Your task to perform on an android device: Add beats solo 3 to the cart on ebay.com Image 0: 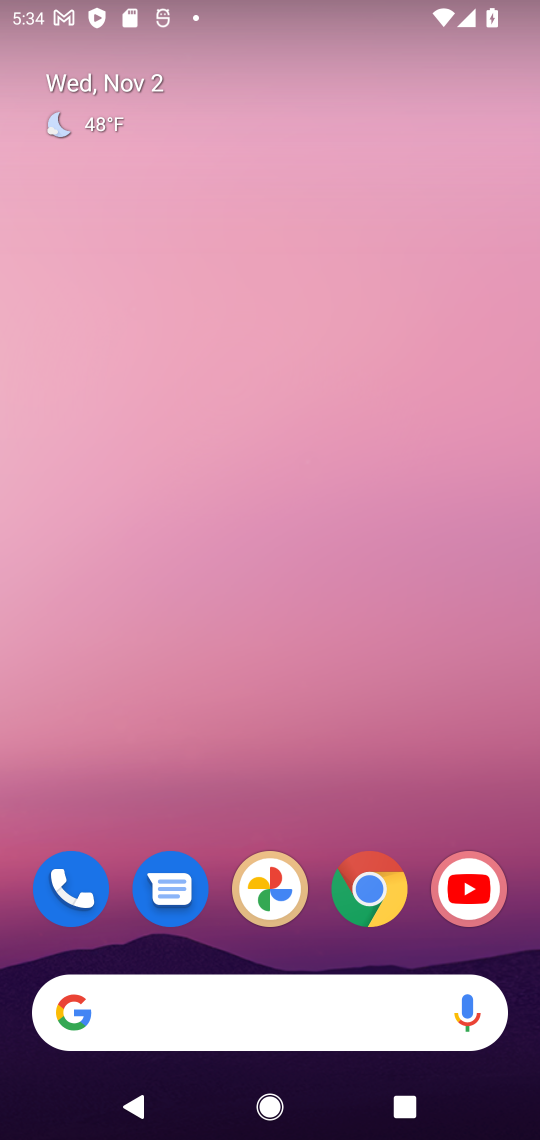
Step 0: click (379, 891)
Your task to perform on an android device: Add beats solo 3 to the cart on ebay.com Image 1: 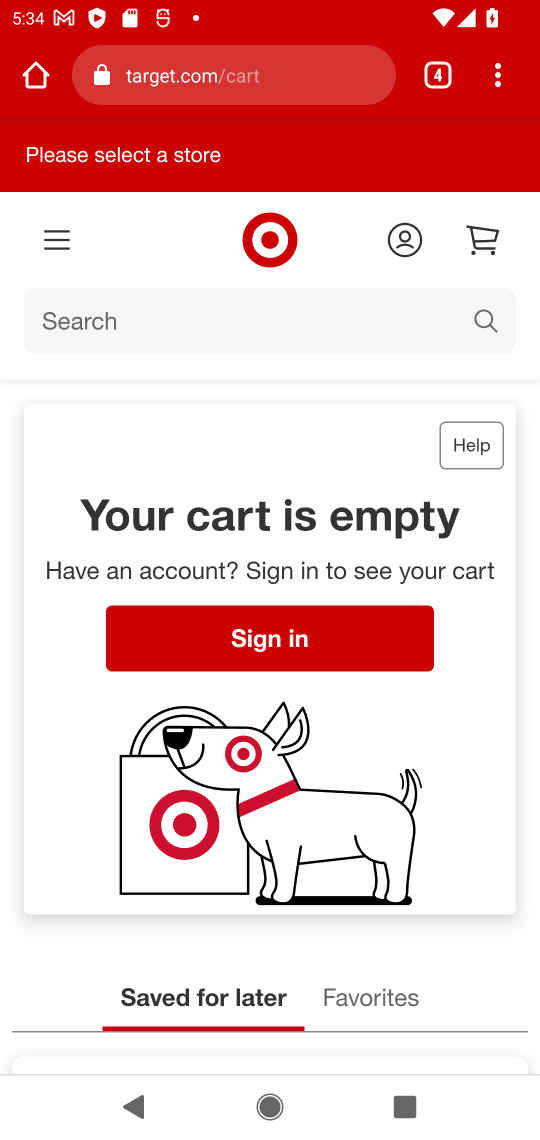
Step 1: click (255, 87)
Your task to perform on an android device: Add beats solo 3 to the cart on ebay.com Image 2: 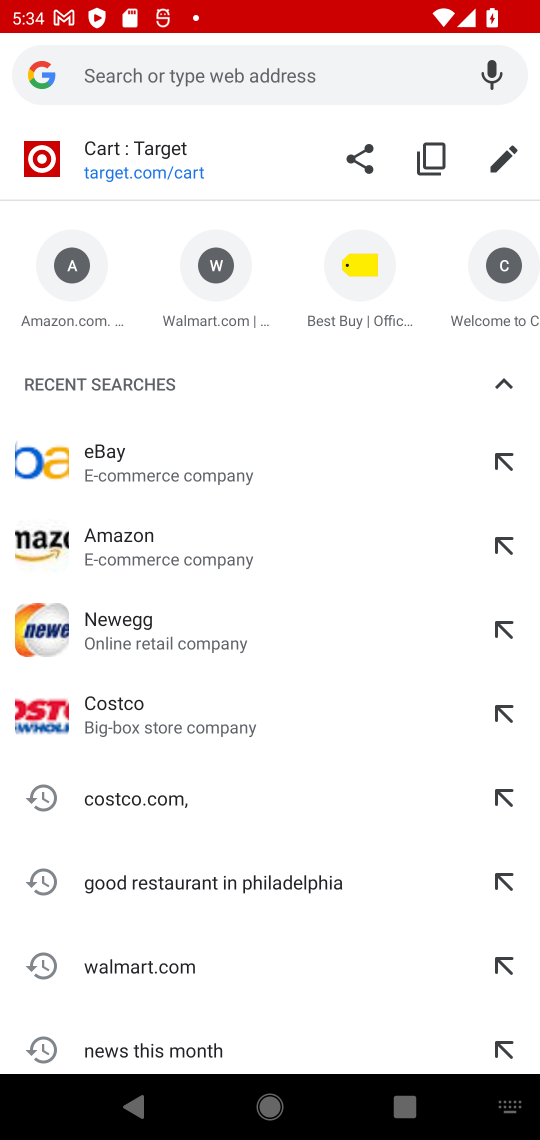
Step 2: click (97, 439)
Your task to perform on an android device: Add beats solo 3 to the cart on ebay.com Image 3: 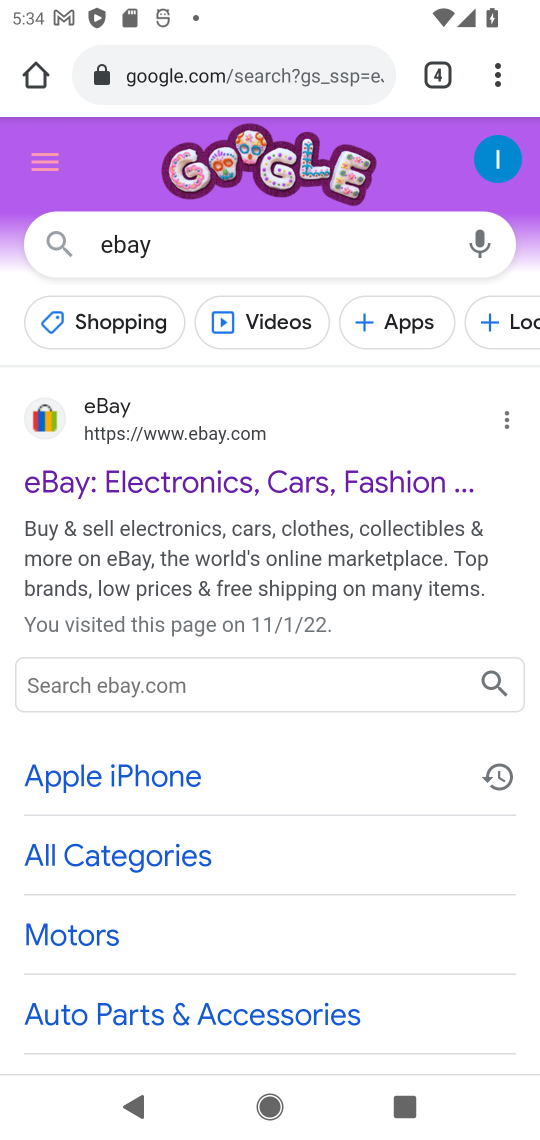
Step 3: click (107, 489)
Your task to perform on an android device: Add beats solo 3 to the cart on ebay.com Image 4: 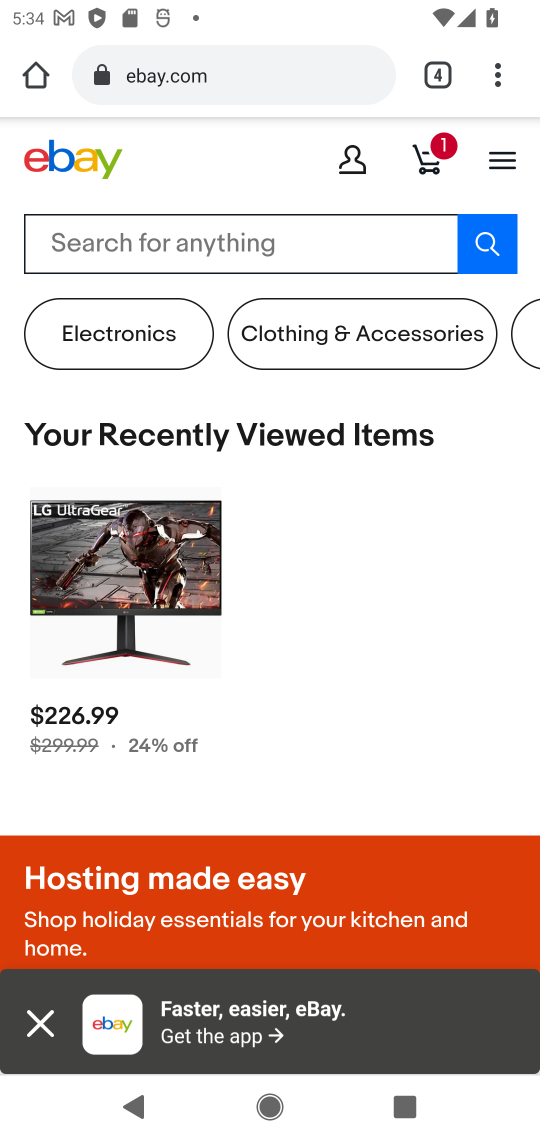
Step 4: click (215, 248)
Your task to perform on an android device: Add beats solo 3 to the cart on ebay.com Image 5: 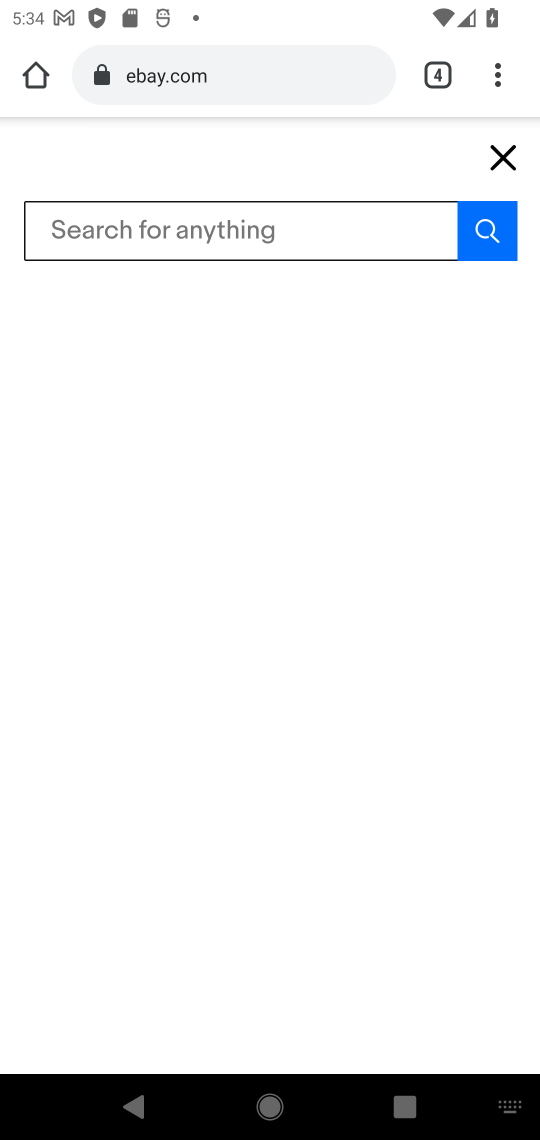
Step 5: type "beats solo 3"
Your task to perform on an android device: Add beats solo 3 to the cart on ebay.com Image 6: 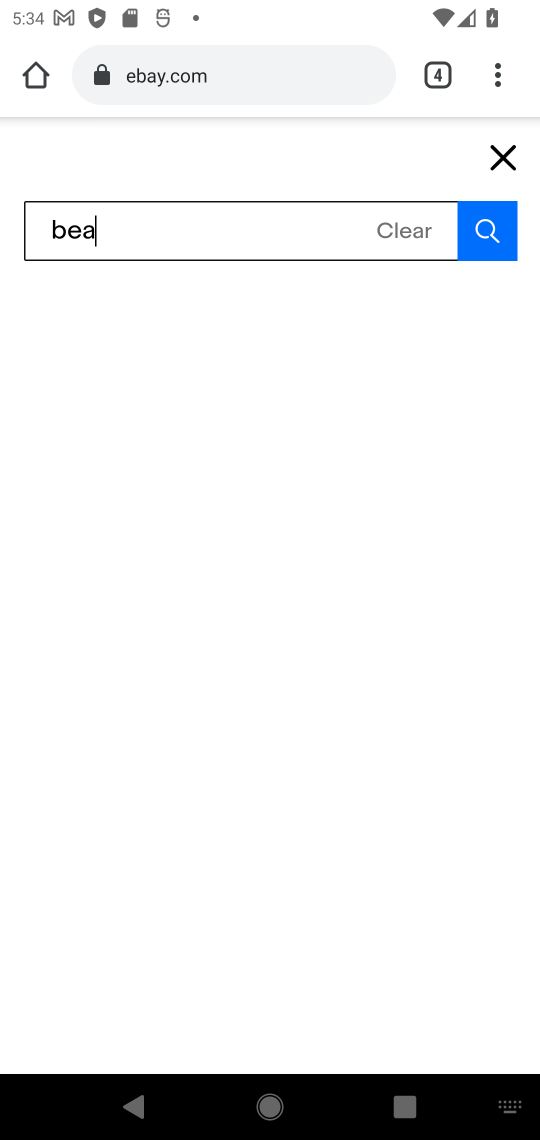
Step 6: press enter
Your task to perform on an android device: Add beats solo 3 to the cart on ebay.com Image 7: 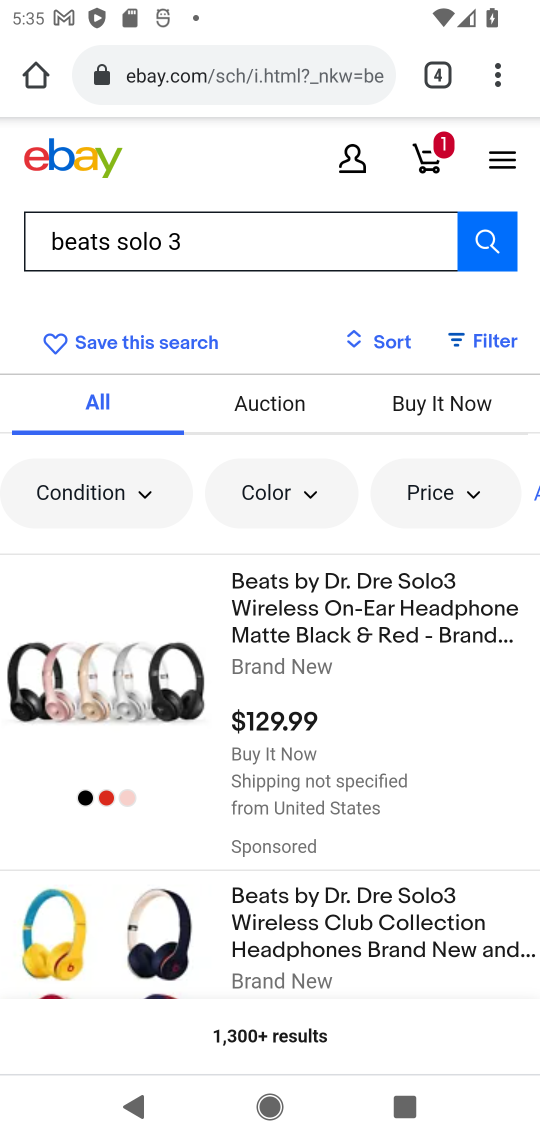
Step 7: click (282, 612)
Your task to perform on an android device: Add beats solo 3 to the cart on ebay.com Image 8: 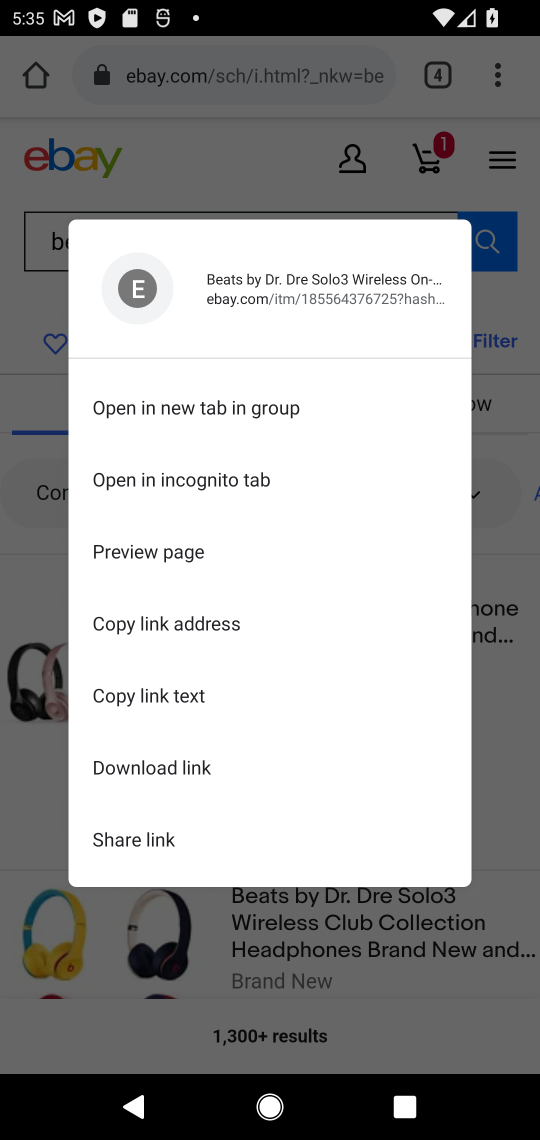
Step 8: click (42, 637)
Your task to perform on an android device: Add beats solo 3 to the cart on ebay.com Image 9: 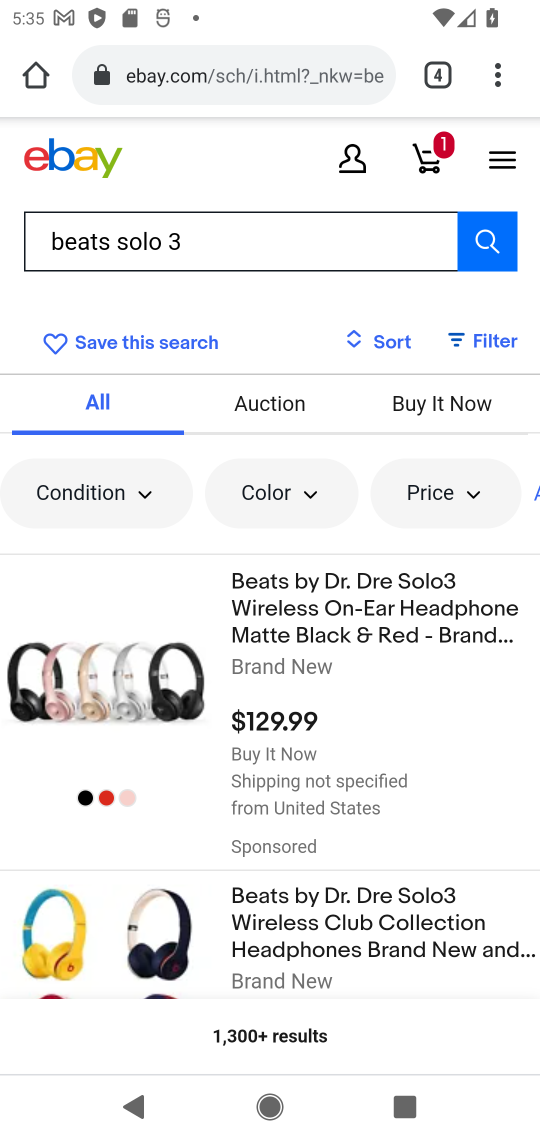
Step 9: click (326, 621)
Your task to perform on an android device: Add beats solo 3 to the cart on ebay.com Image 10: 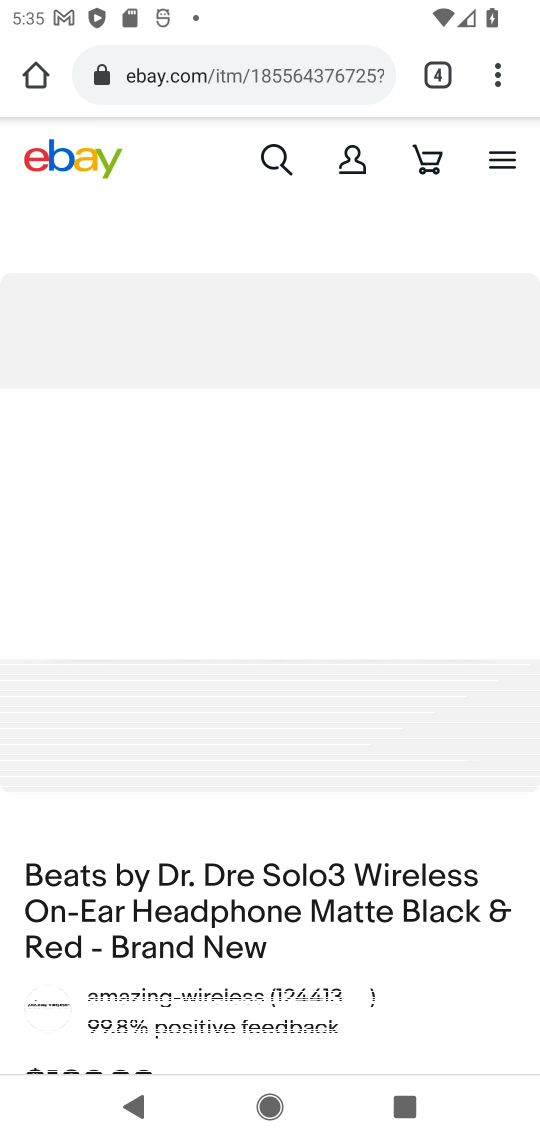
Step 10: drag from (284, 949) to (497, 383)
Your task to perform on an android device: Add beats solo 3 to the cart on ebay.com Image 11: 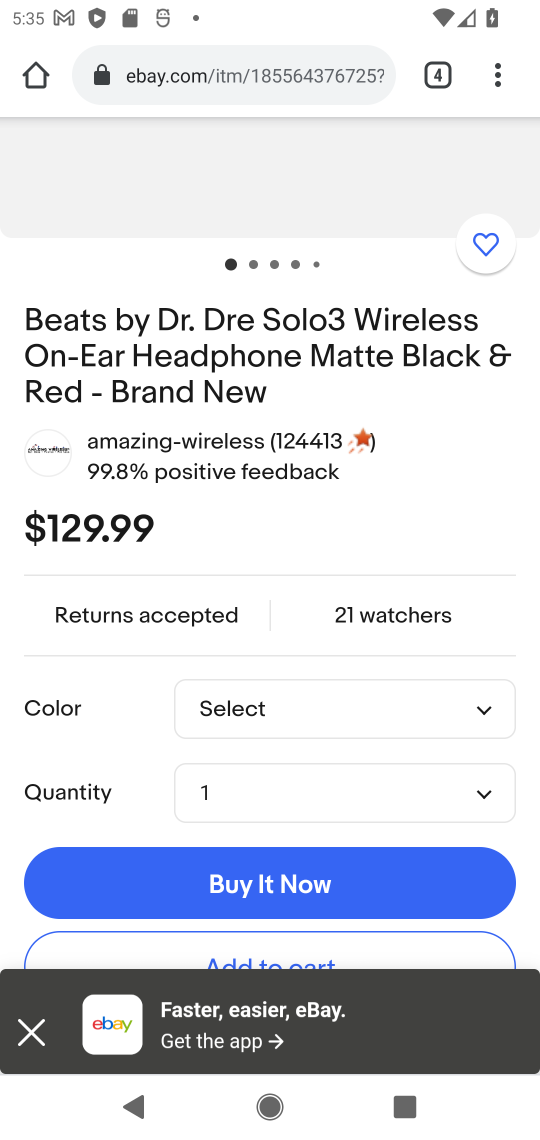
Step 11: drag from (305, 805) to (507, 233)
Your task to perform on an android device: Add beats solo 3 to the cart on ebay.com Image 12: 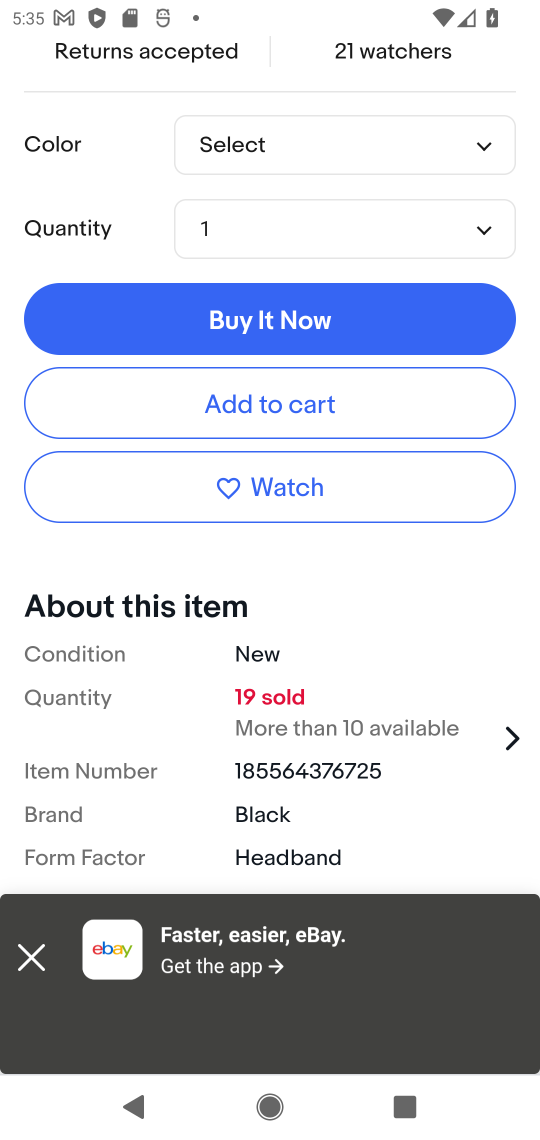
Step 12: click (243, 401)
Your task to perform on an android device: Add beats solo 3 to the cart on ebay.com Image 13: 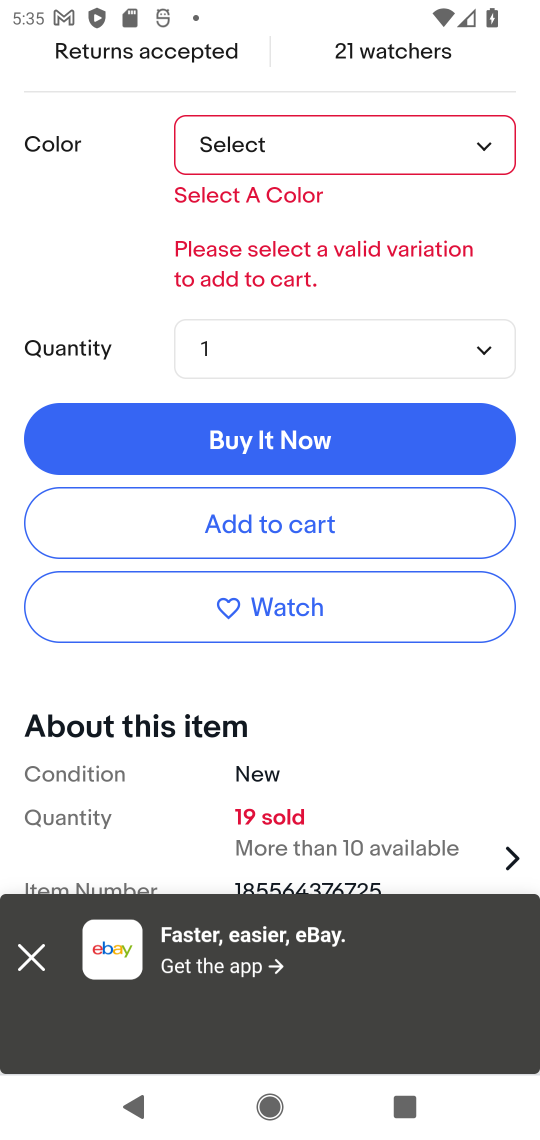
Step 13: click (487, 139)
Your task to perform on an android device: Add beats solo 3 to the cart on ebay.com Image 14: 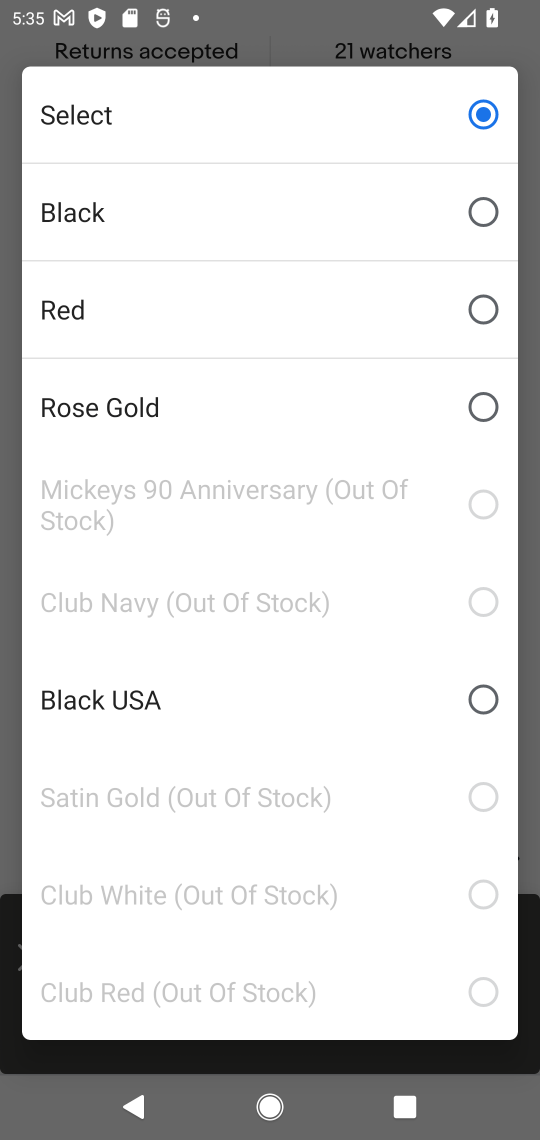
Step 14: click (489, 208)
Your task to perform on an android device: Add beats solo 3 to the cart on ebay.com Image 15: 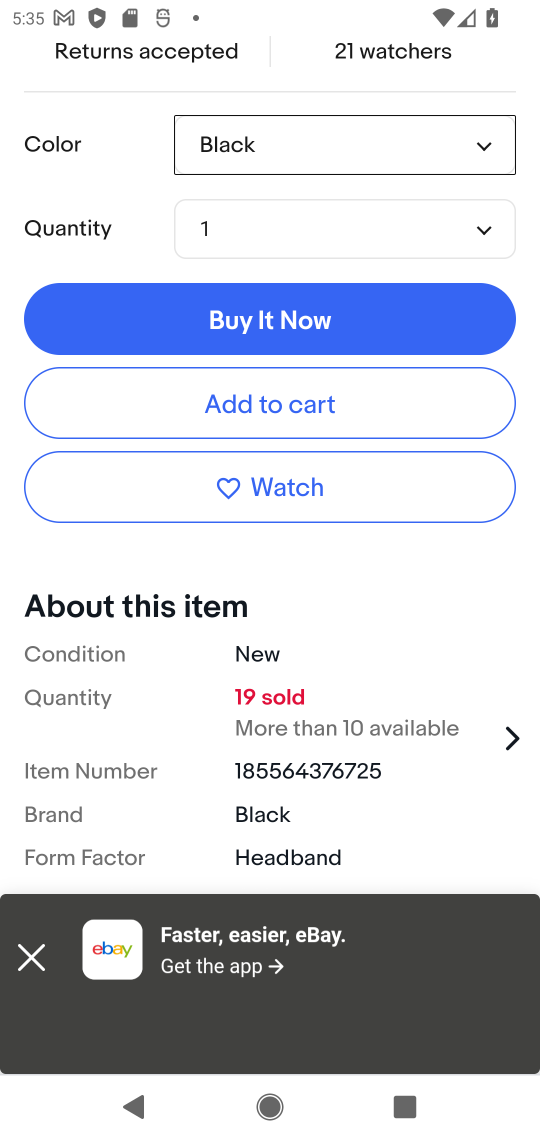
Step 15: click (275, 410)
Your task to perform on an android device: Add beats solo 3 to the cart on ebay.com Image 16: 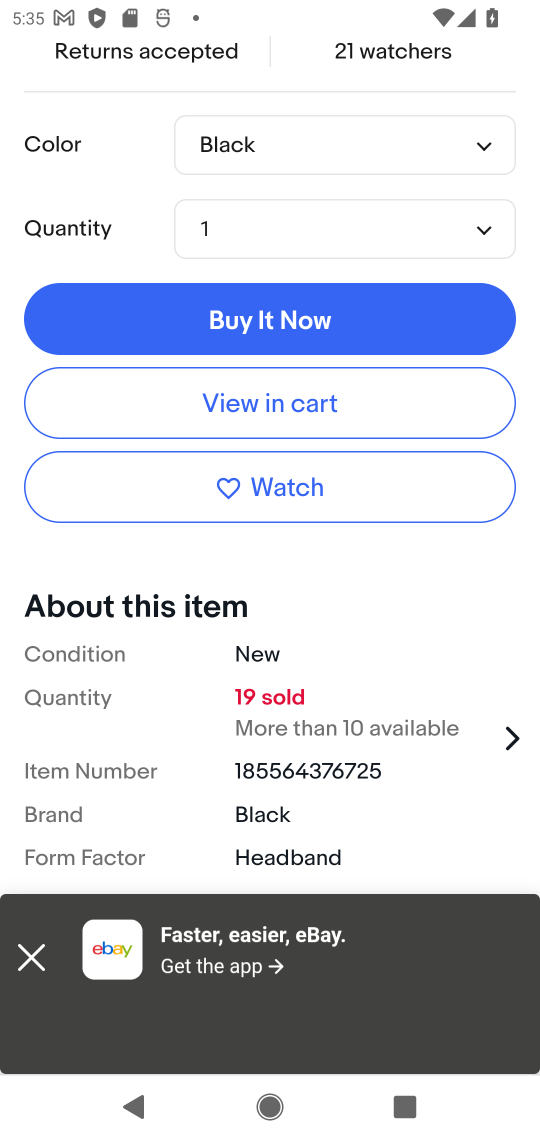
Step 16: click (275, 410)
Your task to perform on an android device: Add beats solo 3 to the cart on ebay.com Image 17: 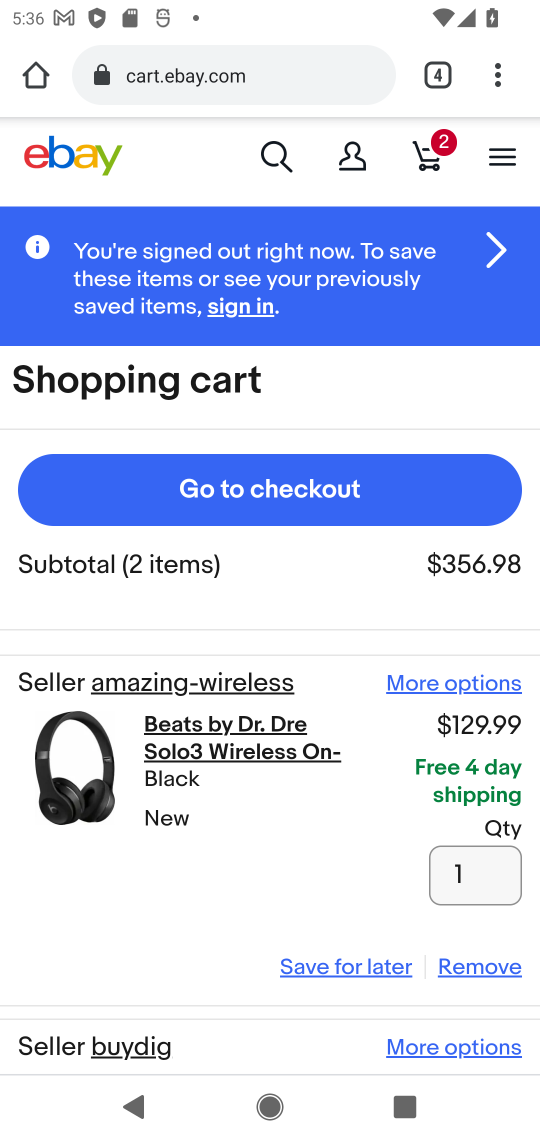
Step 17: drag from (328, 702) to (538, 310)
Your task to perform on an android device: Add beats solo 3 to the cart on ebay.com Image 18: 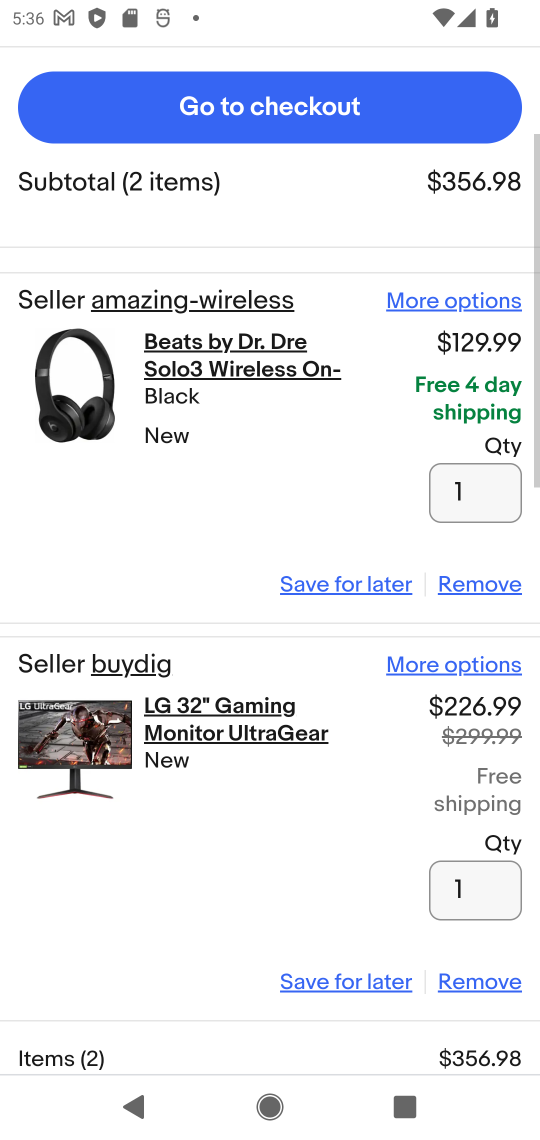
Step 18: drag from (336, 806) to (232, 894)
Your task to perform on an android device: Add beats solo 3 to the cart on ebay.com Image 19: 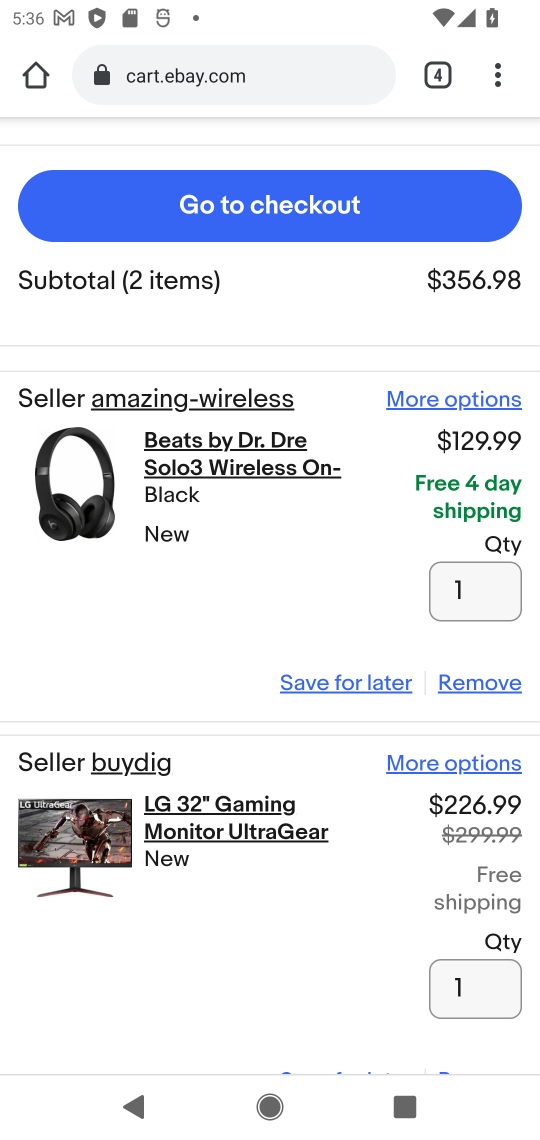
Step 19: drag from (213, 912) to (366, 600)
Your task to perform on an android device: Add beats solo 3 to the cart on ebay.com Image 20: 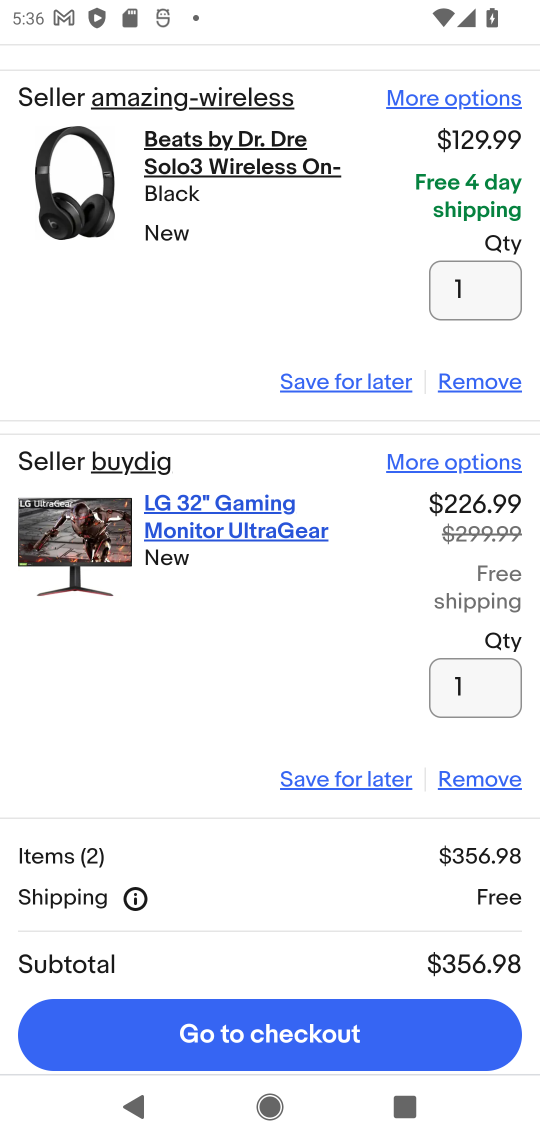
Step 20: click (479, 778)
Your task to perform on an android device: Add beats solo 3 to the cart on ebay.com Image 21: 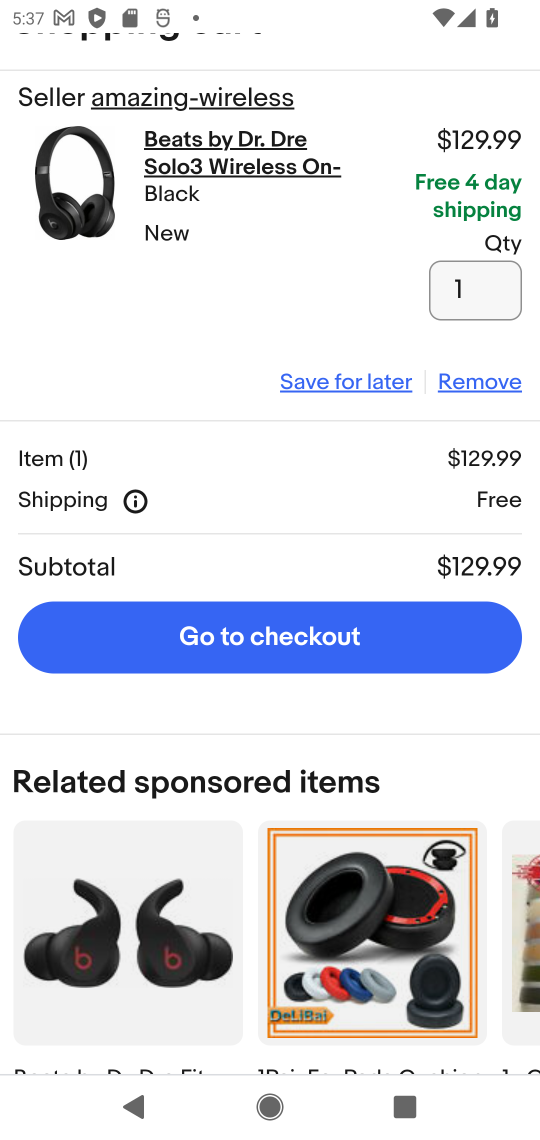
Step 21: task complete